Your task to perform on an android device: Turn on the flashlight Image 0: 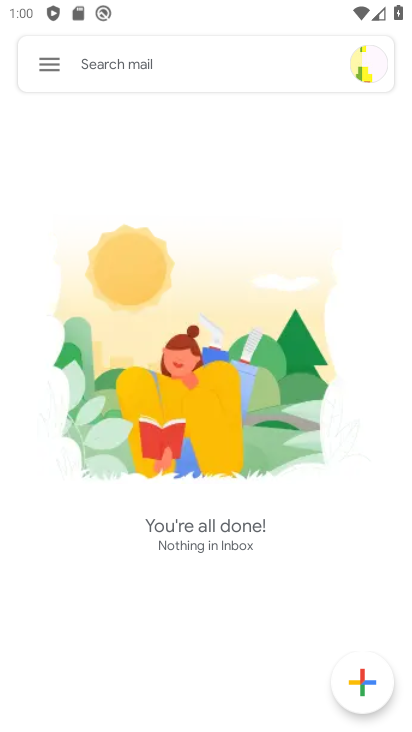
Step 0: drag from (343, 481) to (331, 237)
Your task to perform on an android device: Turn on the flashlight Image 1: 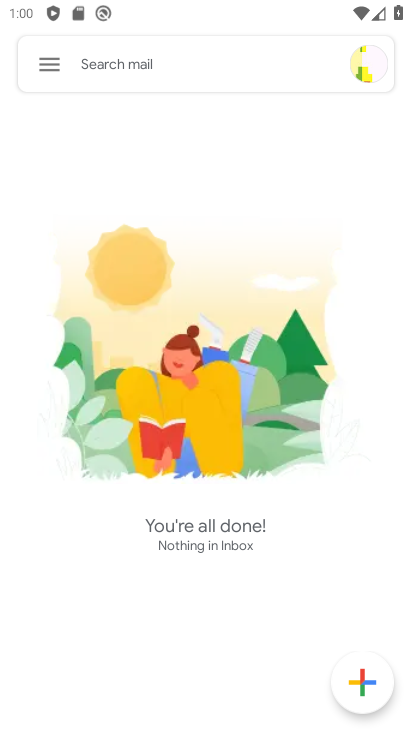
Step 1: press home button
Your task to perform on an android device: Turn on the flashlight Image 2: 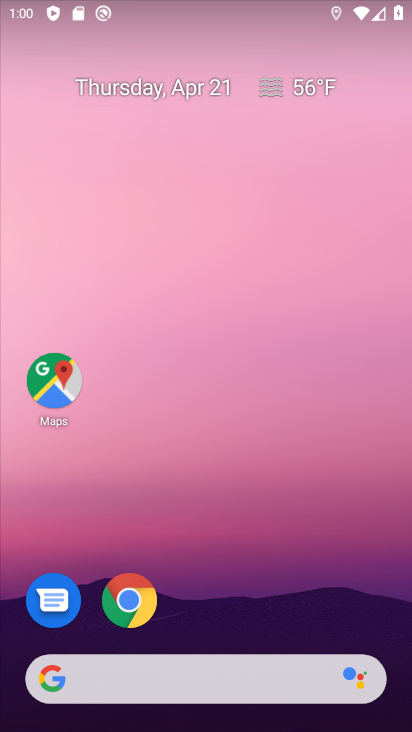
Step 2: drag from (346, 620) to (354, 203)
Your task to perform on an android device: Turn on the flashlight Image 3: 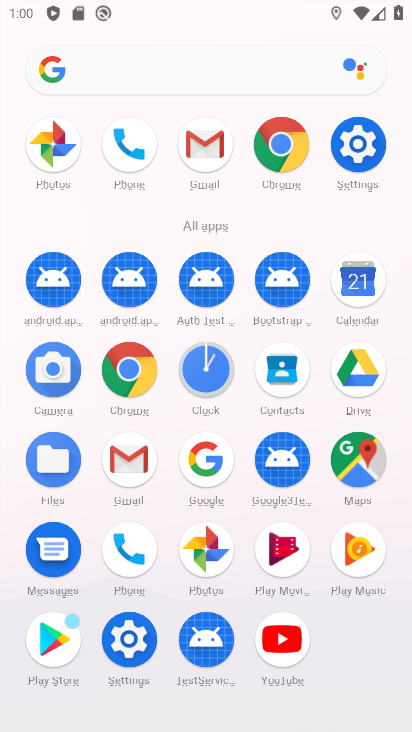
Step 3: click (358, 152)
Your task to perform on an android device: Turn on the flashlight Image 4: 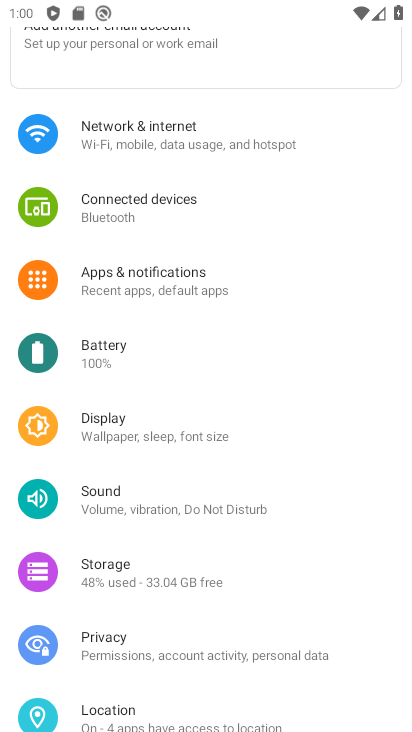
Step 4: click (105, 423)
Your task to perform on an android device: Turn on the flashlight Image 5: 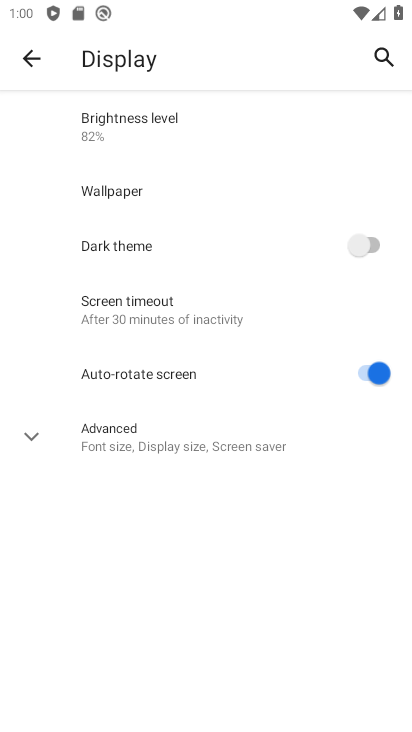
Step 5: task complete